Your task to perform on an android device: delete the emails in spam in the gmail app Image 0: 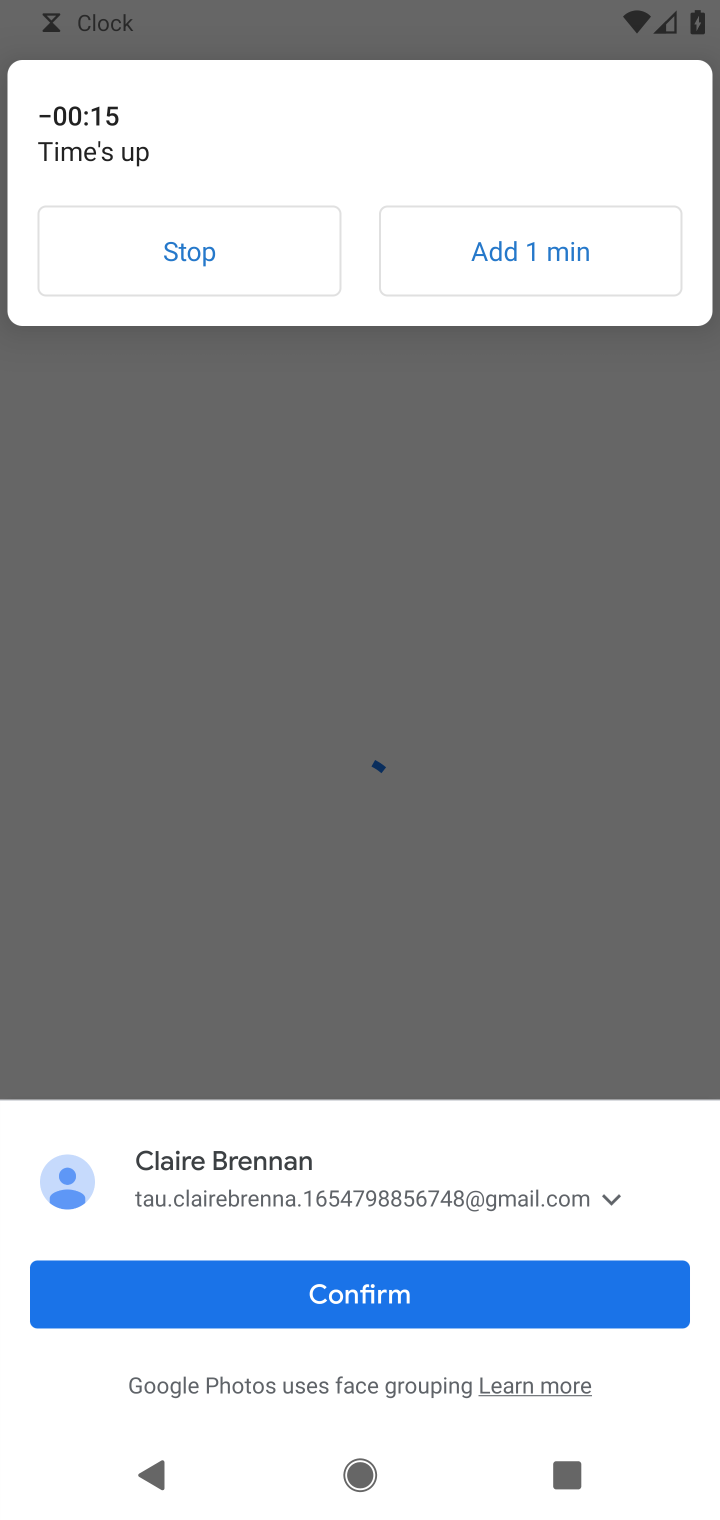
Step 0: press home button
Your task to perform on an android device: delete the emails in spam in the gmail app Image 1: 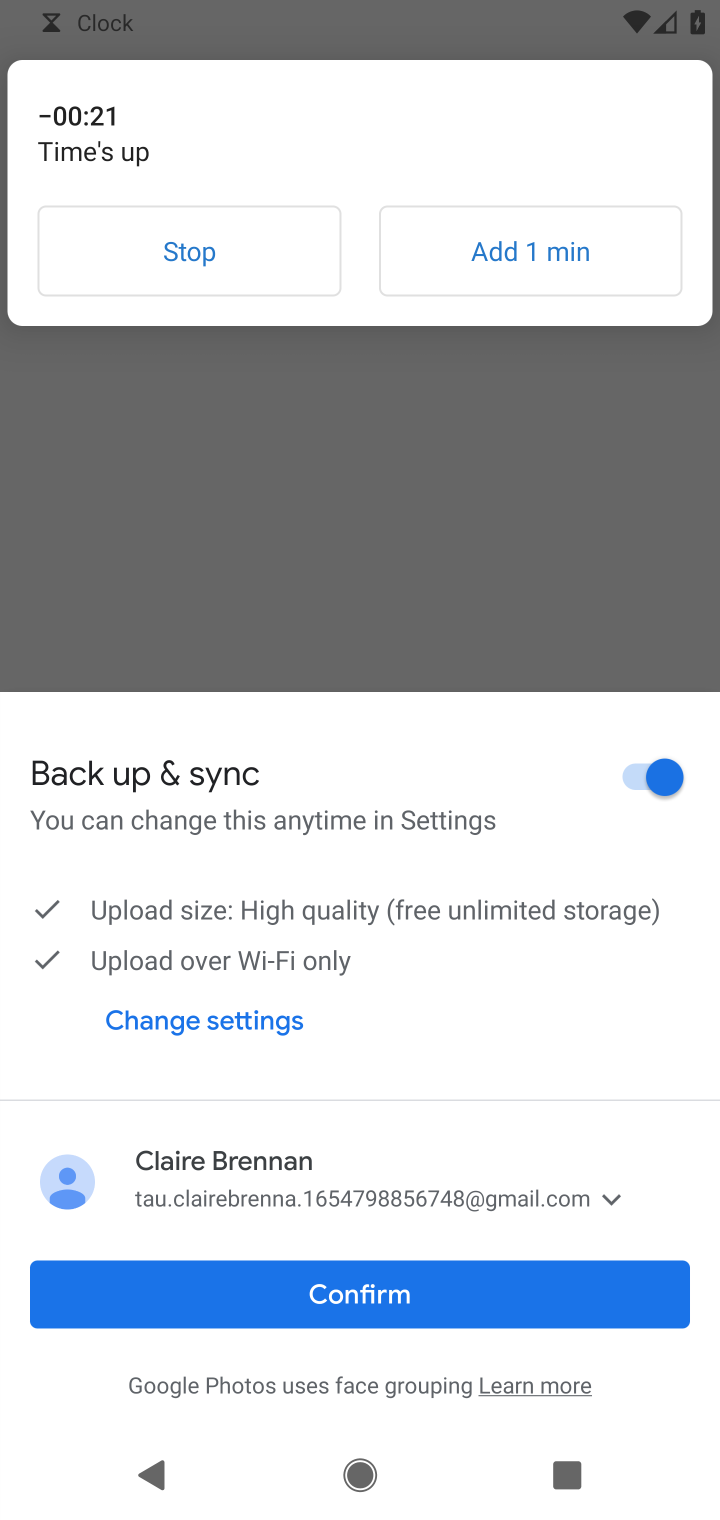
Step 1: press home button
Your task to perform on an android device: delete the emails in spam in the gmail app Image 2: 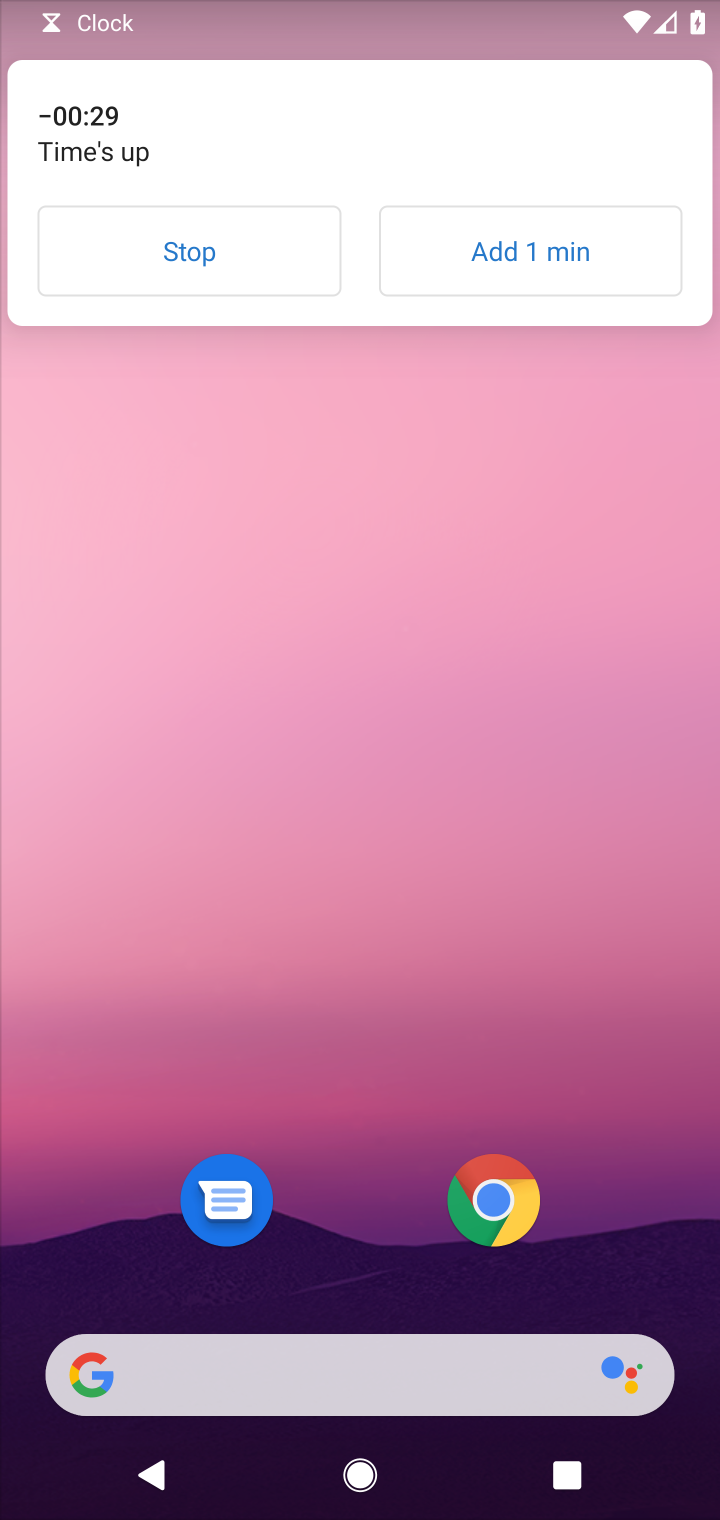
Step 2: click (220, 235)
Your task to perform on an android device: delete the emails in spam in the gmail app Image 3: 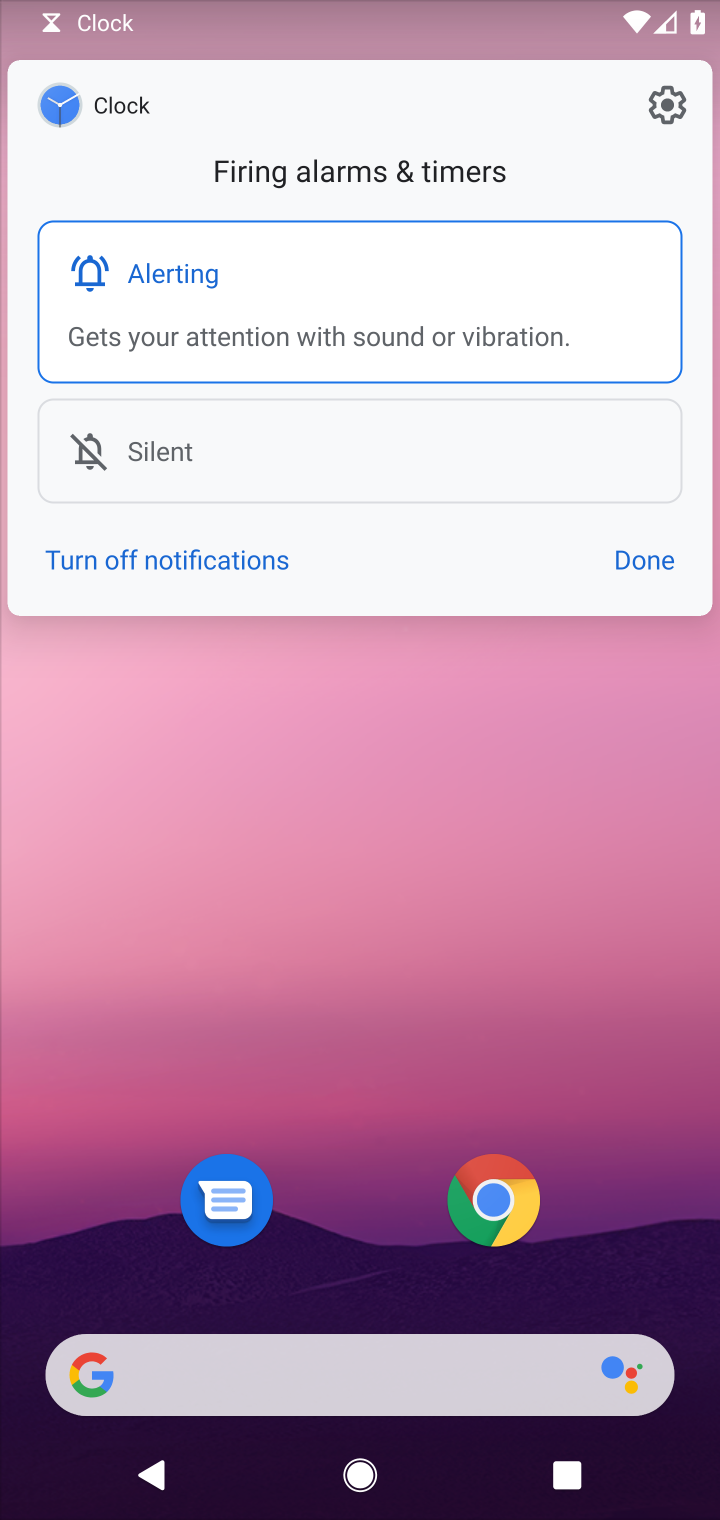
Step 3: click (637, 577)
Your task to perform on an android device: delete the emails in spam in the gmail app Image 4: 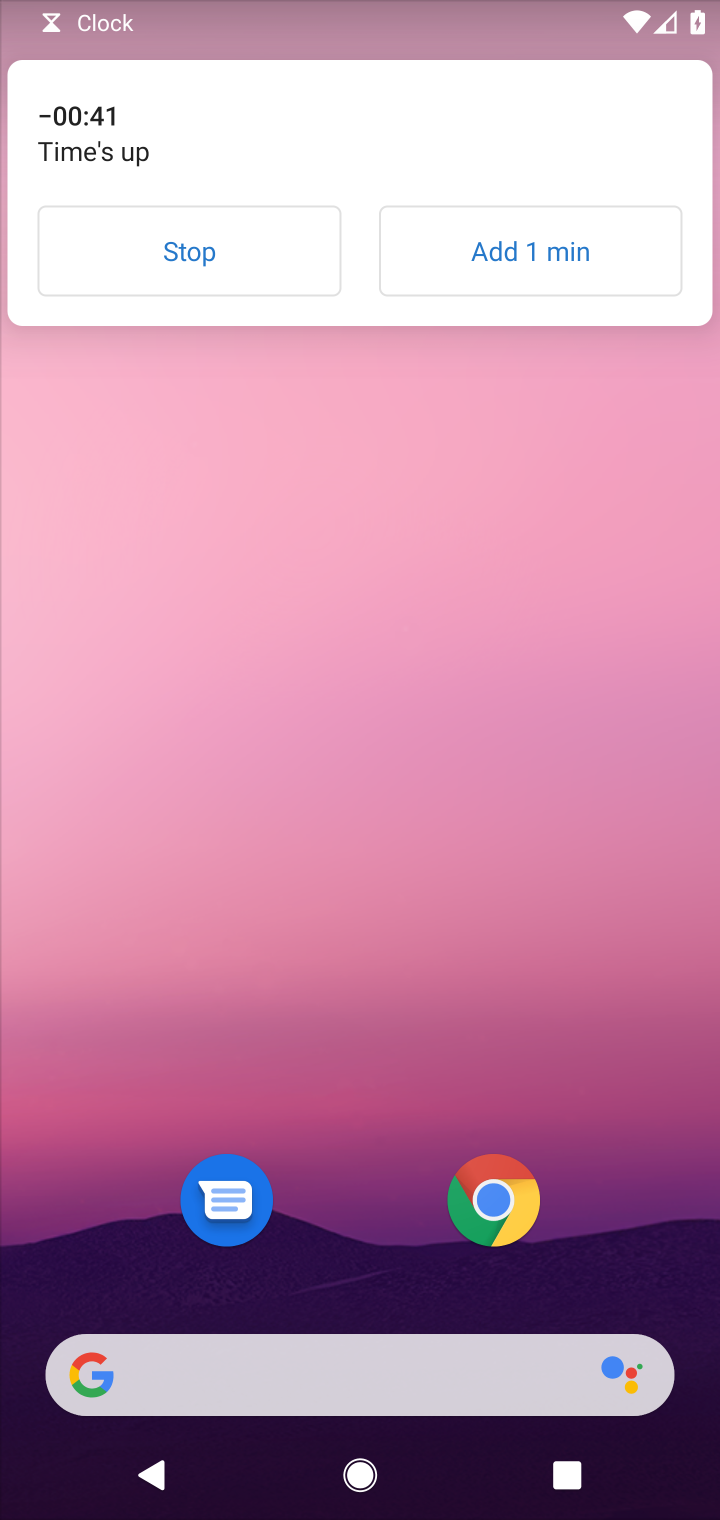
Step 4: click (266, 233)
Your task to perform on an android device: delete the emails in spam in the gmail app Image 5: 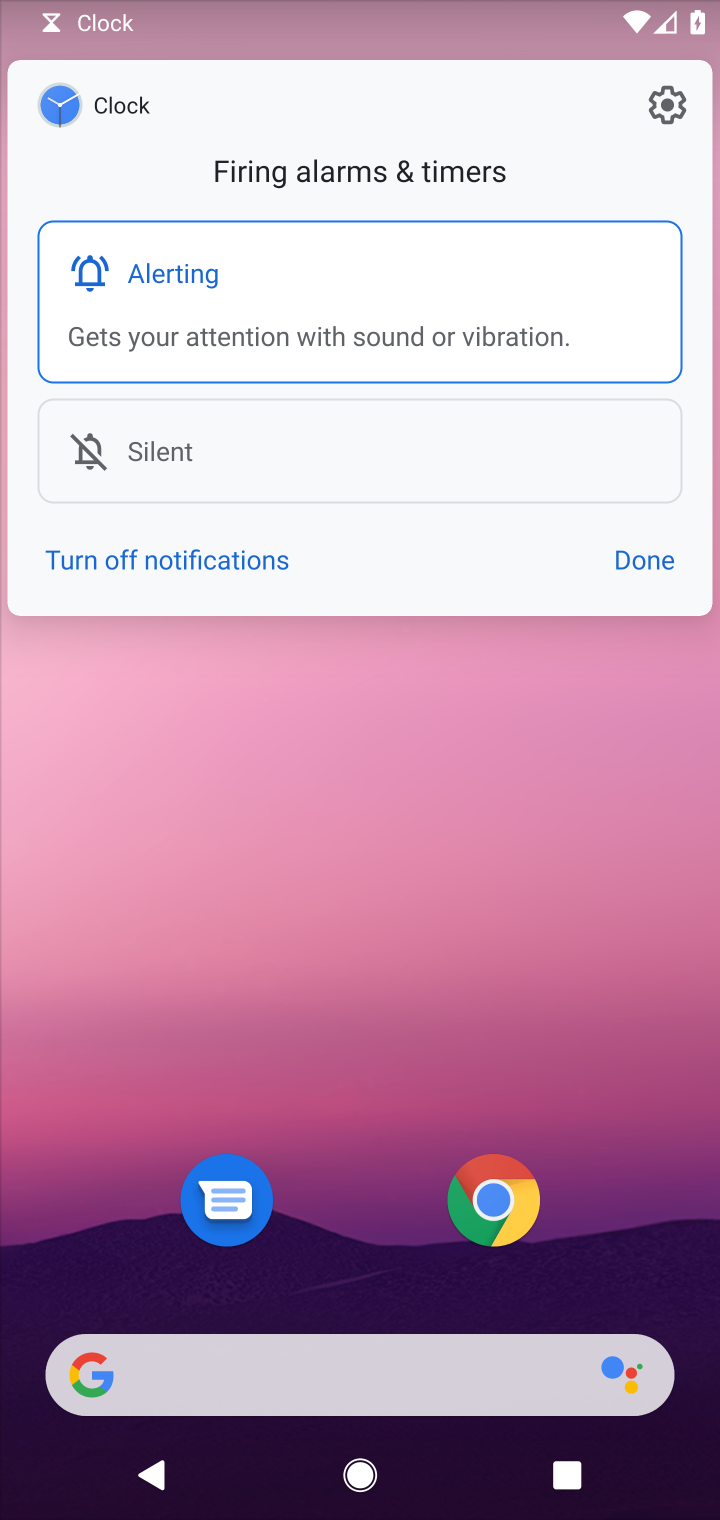
Step 5: drag from (359, 1087) to (332, 181)
Your task to perform on an android device: delete the emails in spam in the gmail app Image 6: 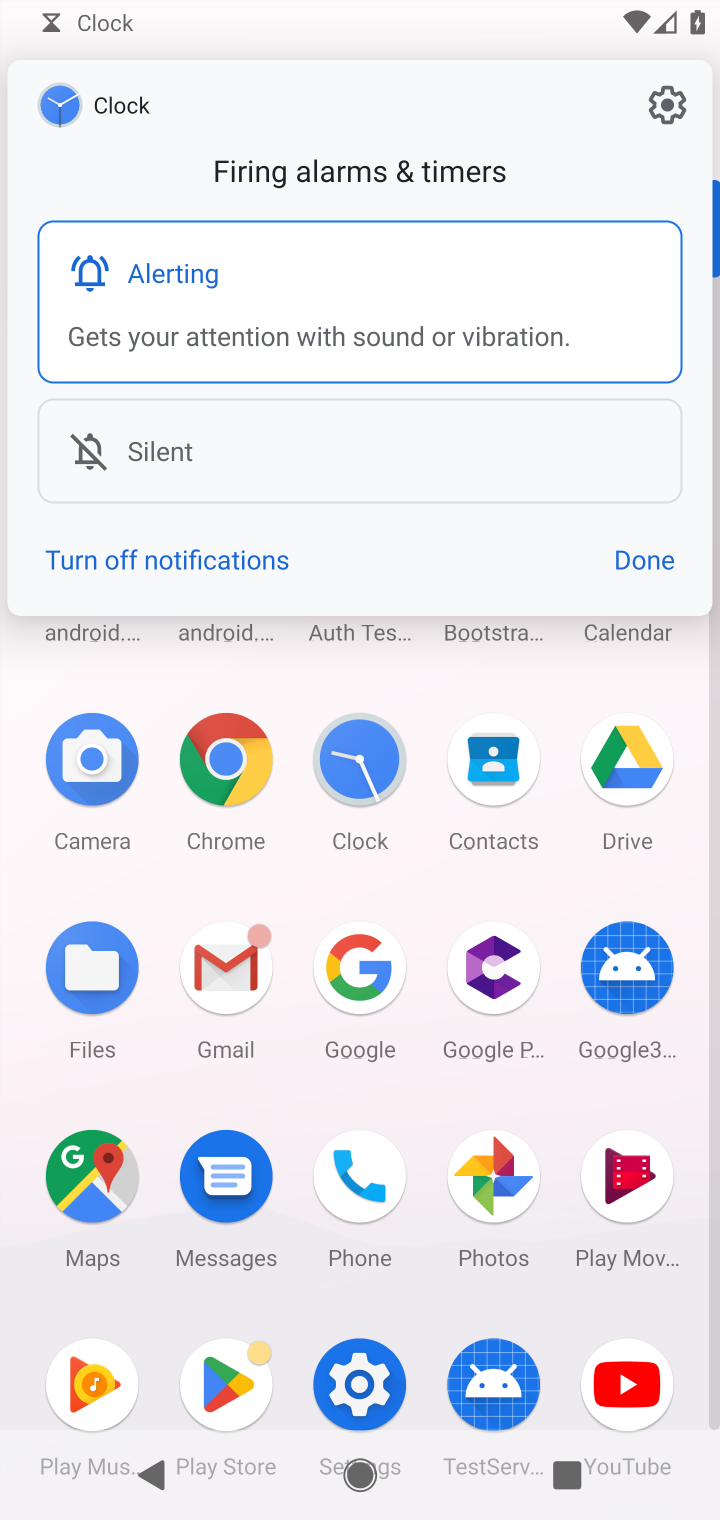
Step 6: click (627, 573)
Your task to perform on an android device: delete the emails in spam in the gmail app Image 7: 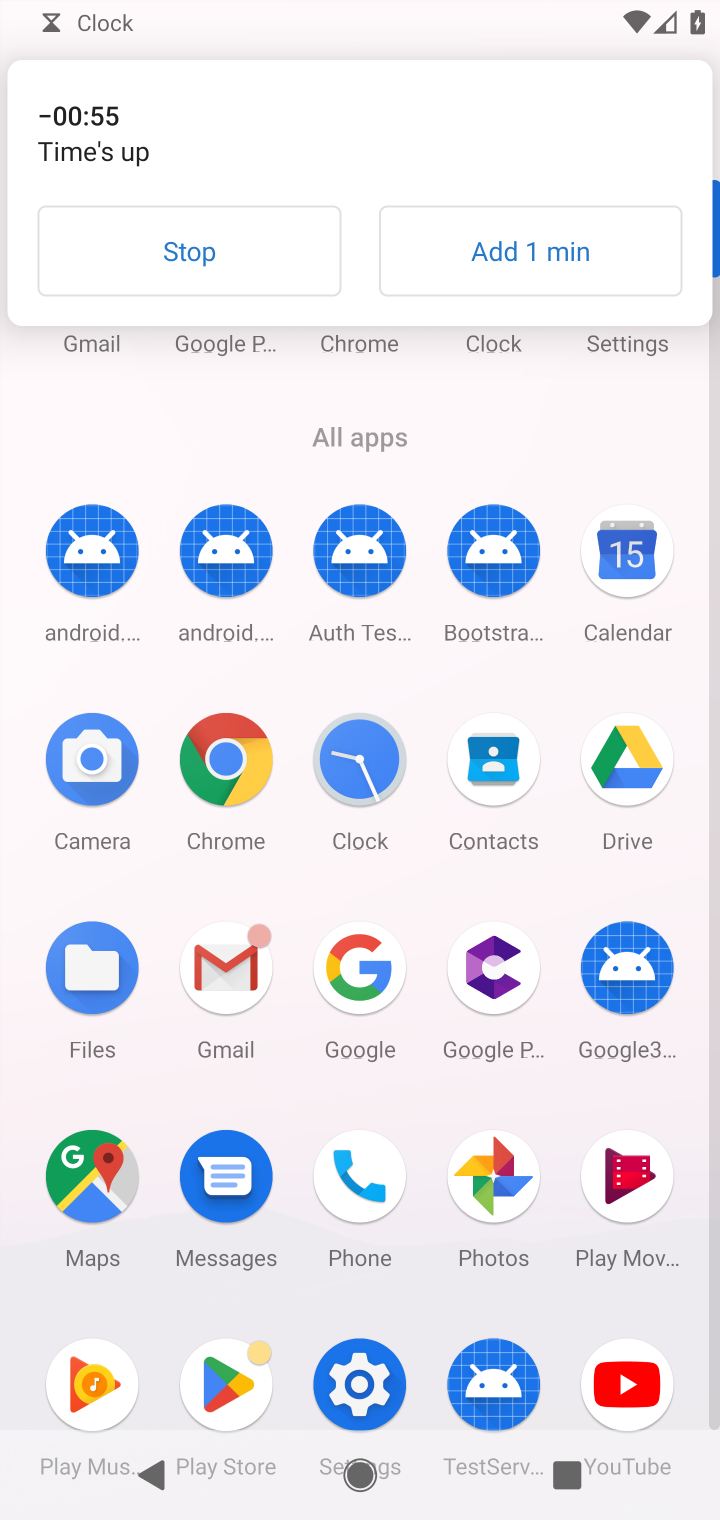
Step 7: click (224, 1009)
Your task to perform on an android device: delete the emails in spam in the gmail app Image 8: 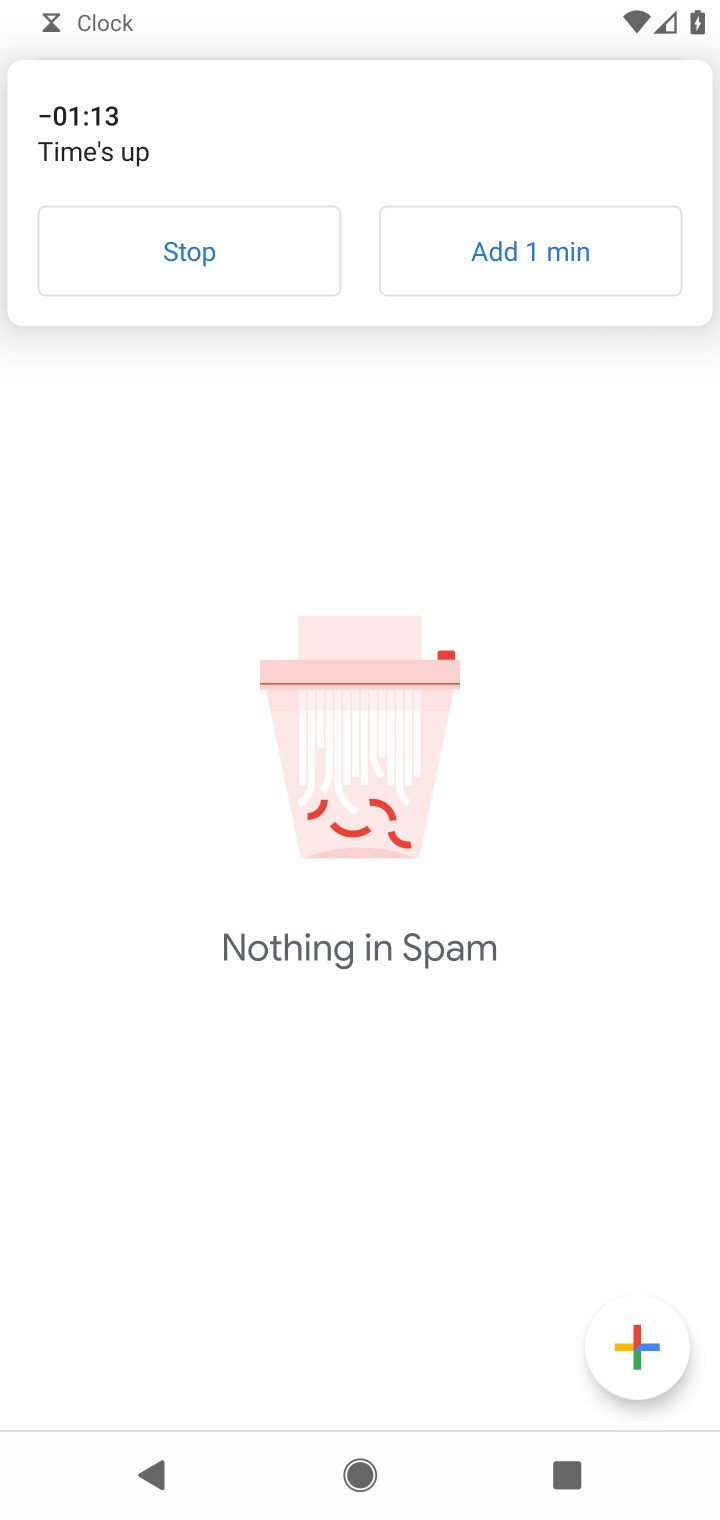
Step 8: task complete